Your task to perform on an android device: turn off smart reply in the gmail app Image 0: 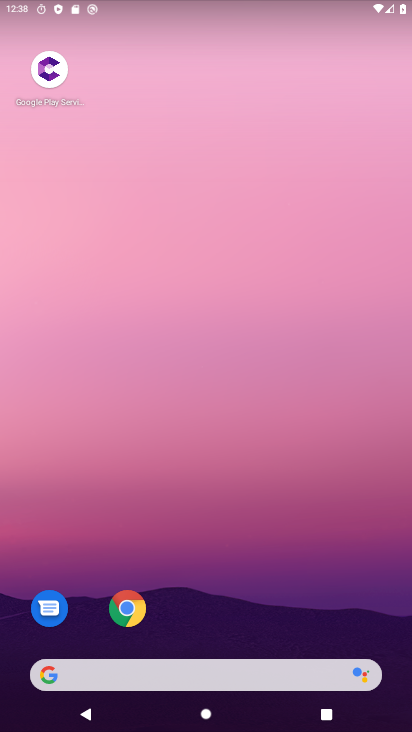
Step 0: drag from (235, 657) to (370, 8)
Your task to perform on an android device: turn off smart reply in the gmail app Image 1: 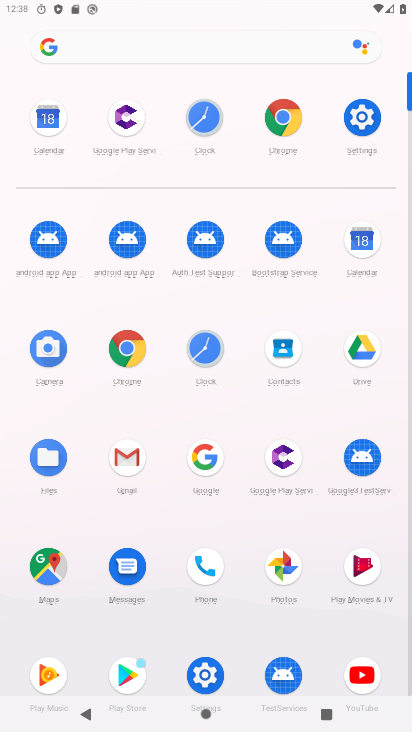
Step 1: click (120, 463)
Your task to perform on an android device: turn off smart reply in the gmail app Image 2: 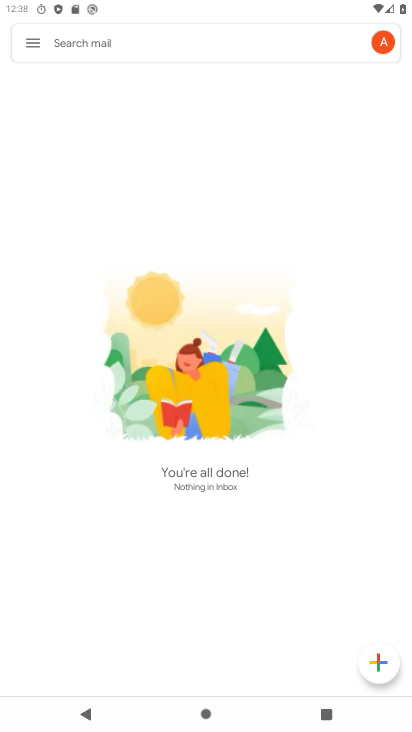
Step 2: click (27, 41)
Your task to perform on an android device: turn off smart reply in the gmail app Image 3: 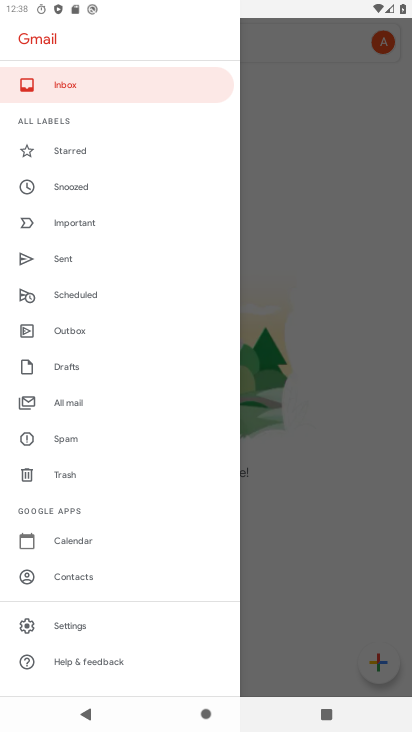
Step 3: drag from (90, 670) to (166, 107)
Your task to perform on an android device: turn off smart reply in the gmail app Image 4: 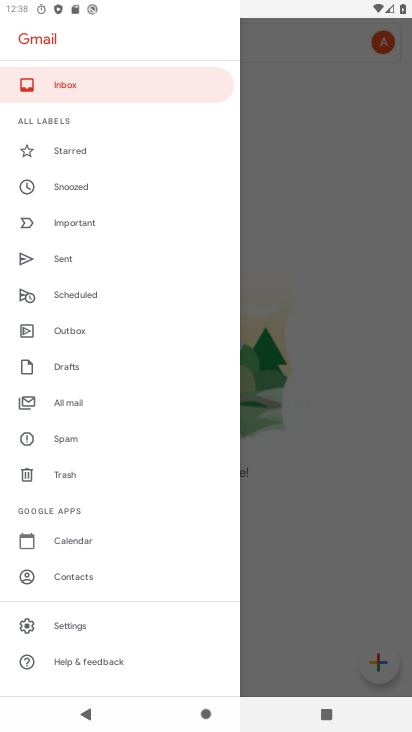
Step 4: click (69, 634)
Your task to perform on an android device: turn off smart reply in the gmail app Image 5: 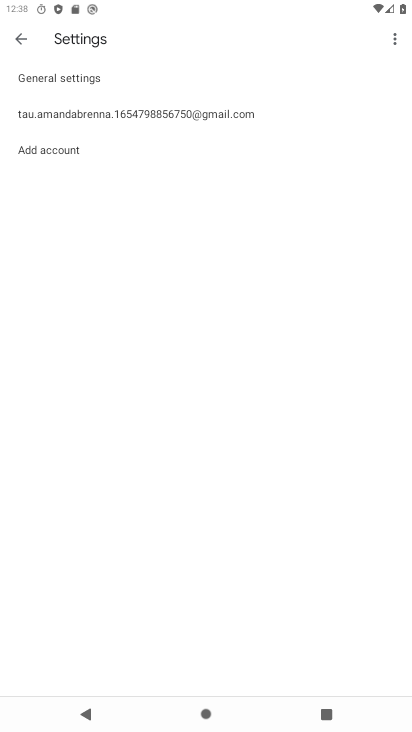
Step 5: click (105, 107)
Your task to perform on an android device: turn off smart reply in the gmail app Image 6: 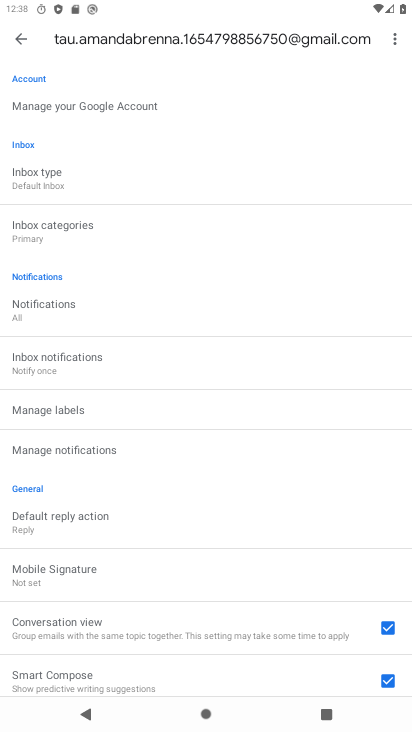
Step 6: drag from (175, 629) to (287, 168)
Your task to perform on an android device: turn off smart reply in the gmail app Image 7: 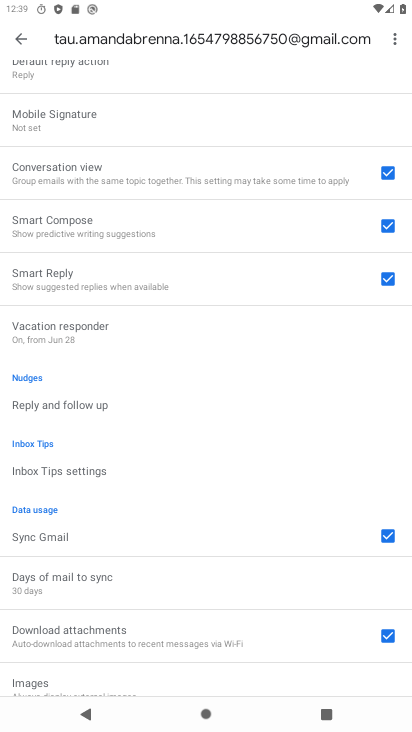
Step 7: drag from (93, 654) to (186, 197)
Your task to perform on an android device: turn off smart reply in the gmail app Image 8: 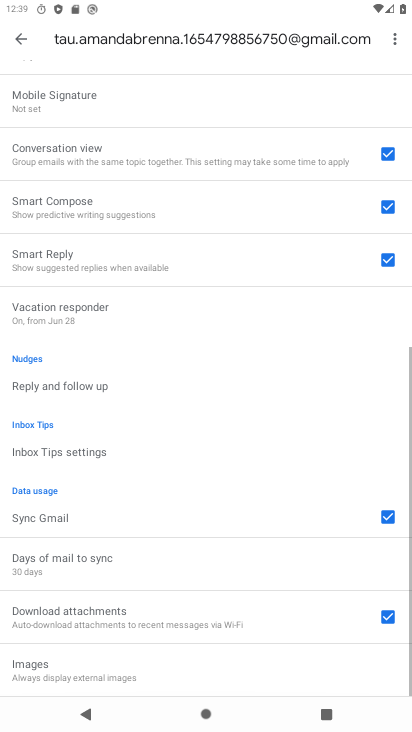
Step 8: drag from (184, 221) to (170, 437)
Your task to perform on an android device: turn off smart reply in the gmail app Image 9: 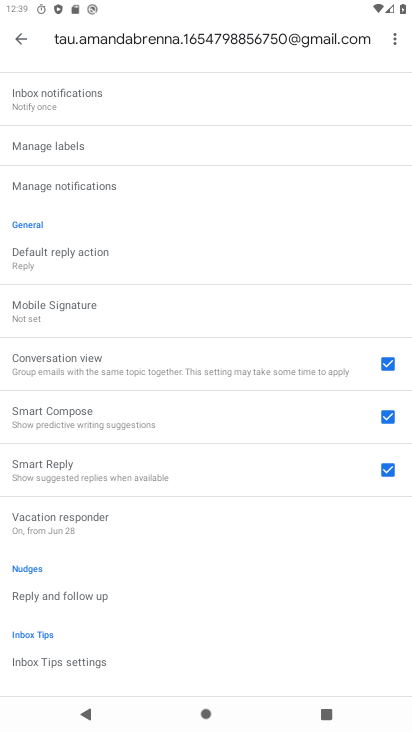
Step 9: click (377, 466)
Your task to perform on an android device: turn off smart reply in the gmail app Image 10: 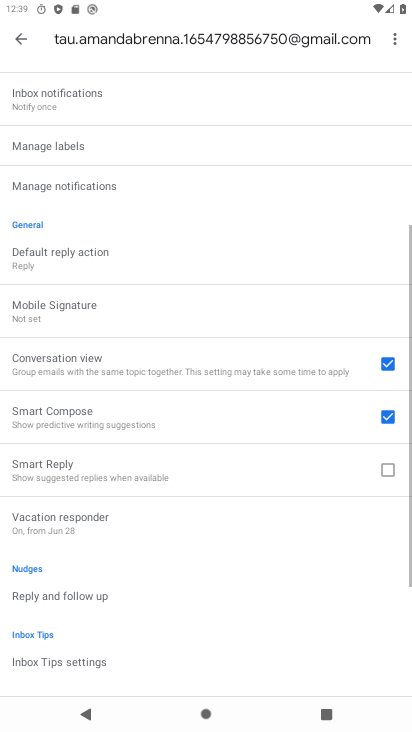
Step 10: task complete